Your task to perform on an android device: change alarm snooze length Image 0: 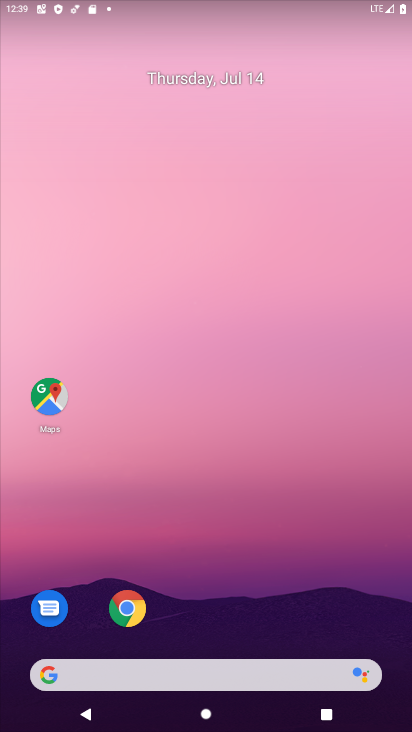
Step 0: drag from (26, 466) to (188, 141)
Your task to perform on an android device: change alarm snooze length Image 1: 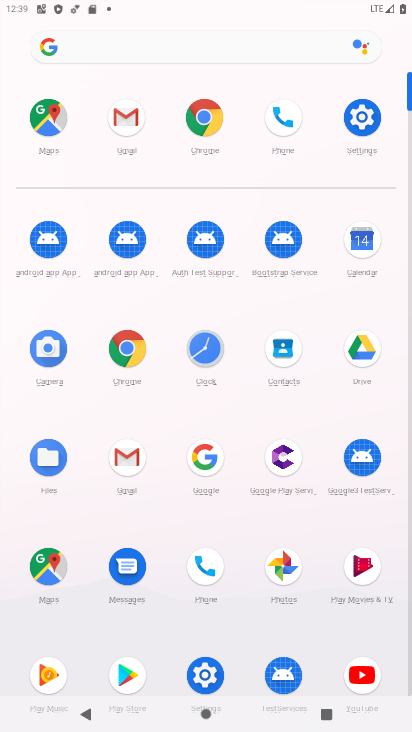
Step 1: click (192, 341)
Your task to perform on an android device: change alarm snooze length Image 2: 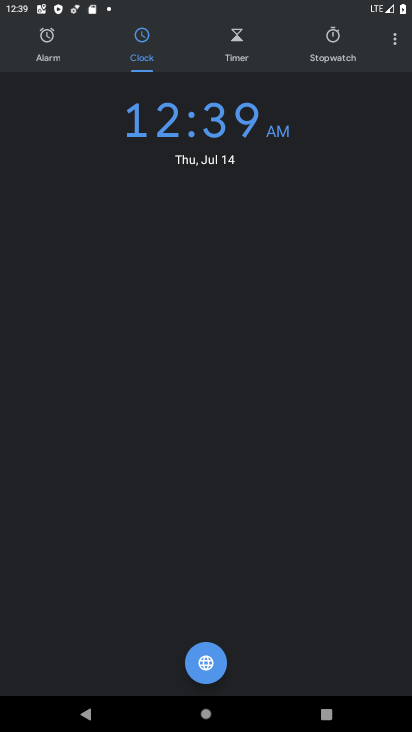
Step 2: click (390, 46)
Your task to perform on an android device: change alarm snooze length Image 3: 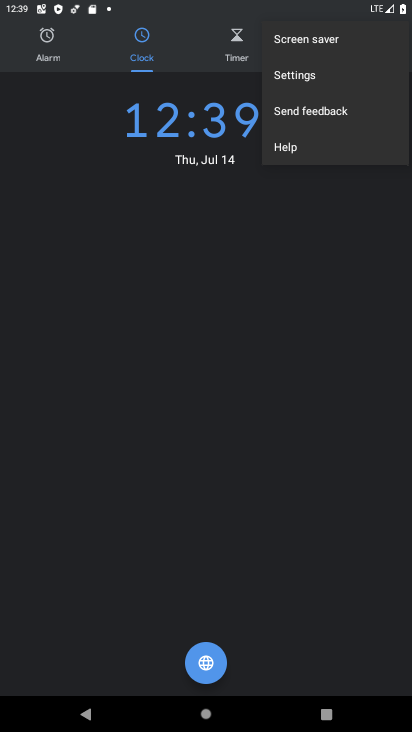
Step 3: click (314, 84)
Your task to perform on an android device: change alarm snooze length Image 4: 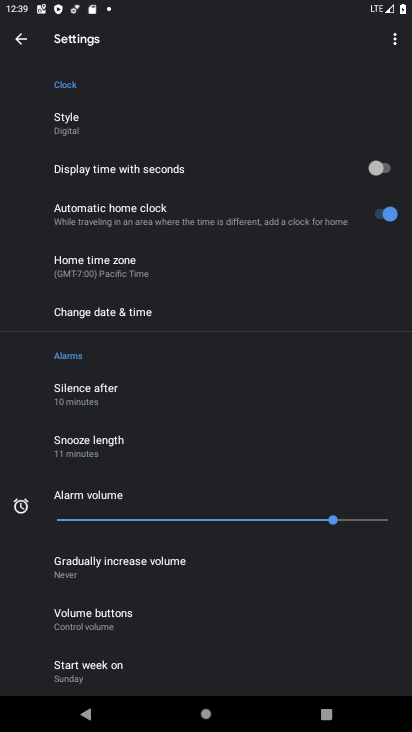
Step 4: click (157, 434)
Your task to perform on an android device: change alarm snooze length Image 5: 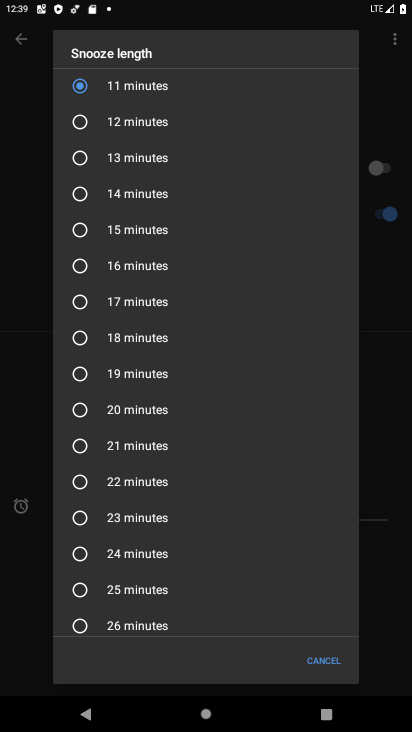
Step 5: click (90, 125)
Your task to perform on an android device: change alarm snooze length Image 6: 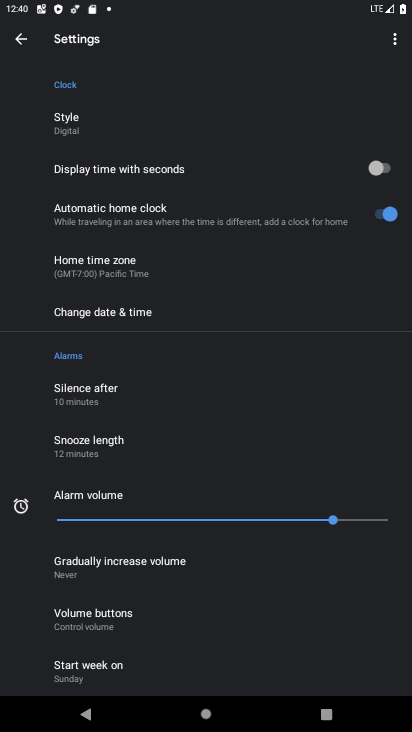
Step 6: task complete